Your task to perform on an android device: turn off airplane mode Image 0: 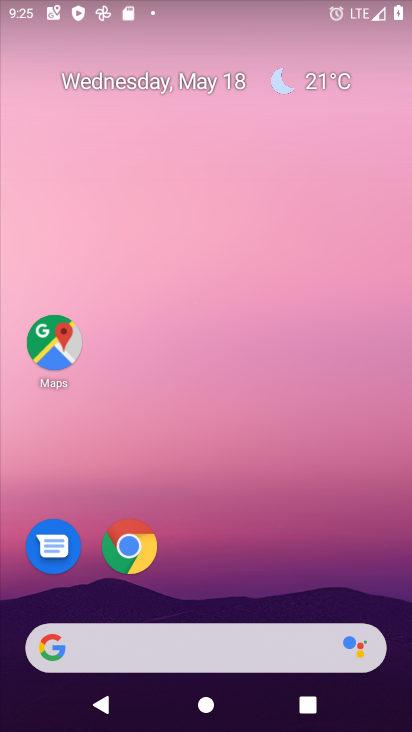
Step 0: drag from (396, 633) to (299, 87)
Your task to perform on an android device: turn off airplane mode Image 1: 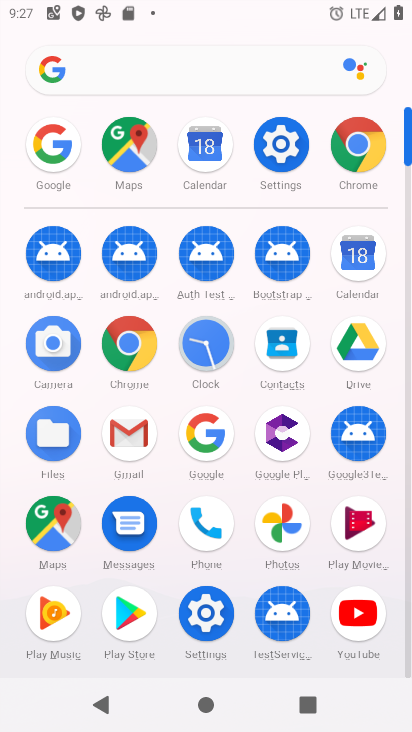
Step 1: task complete